Your task to perform on an android device: change the clock display to analog Image 0: 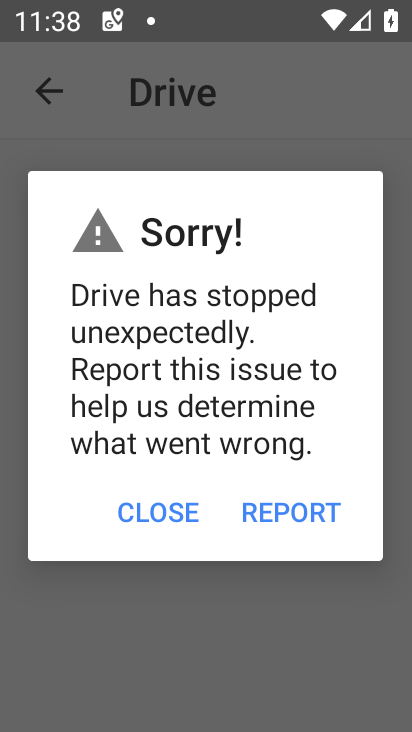
Step 0: press home button
Your task to perform on an android device: change the clock display to analog Image 1: 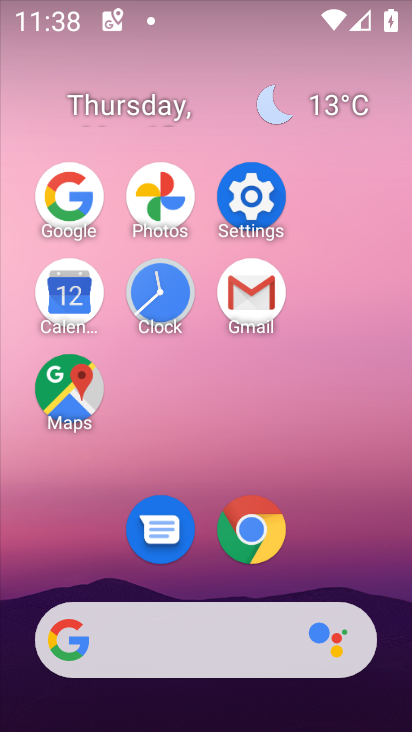
Step 1: click (145, 302)
Your task to perform on an android device: change the clock display to analog Image 2: 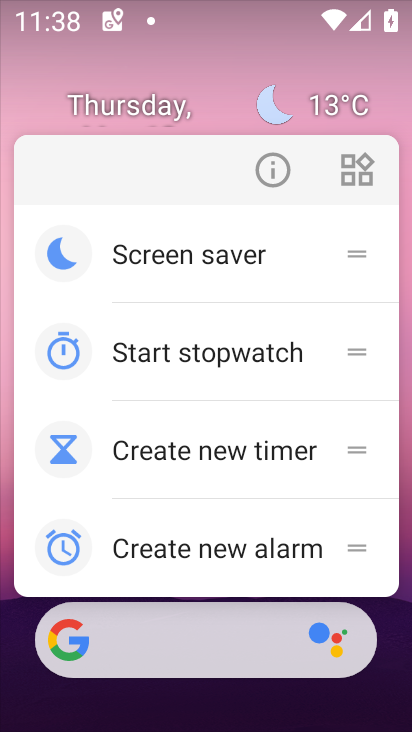
Step 2: click (400, 80)
Your task to perform on an android device: change the clock display to analog Image 3: 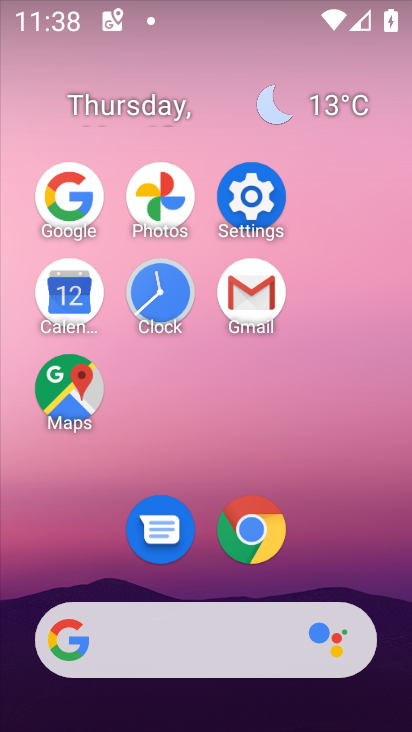
Step 3: click (157, 311)
Your task to perform on an android device: change the clock display to analog Image 4: 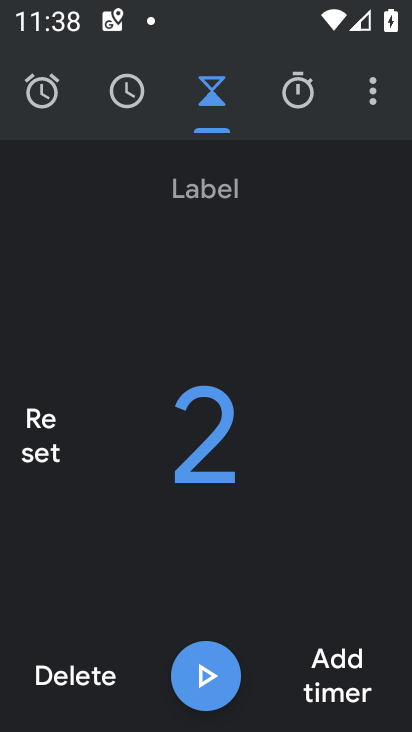
Step 4: click (373, 82)
Your task to perform on an android device: change the clock display to analog Image 5: 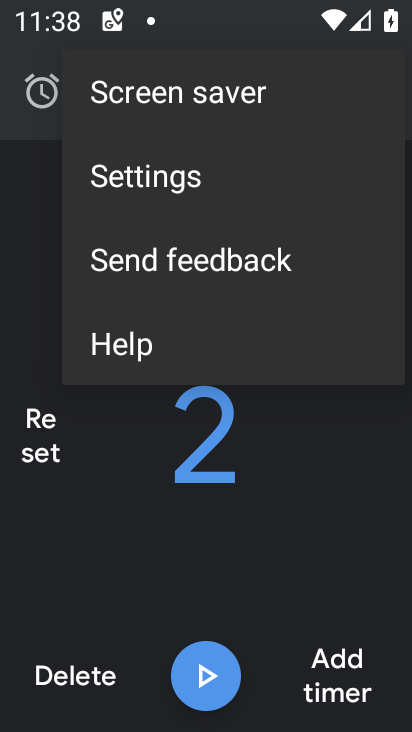
Step 5: click (192, 191)
Your task to perform on an android device: change the clock display to analog Image 6: 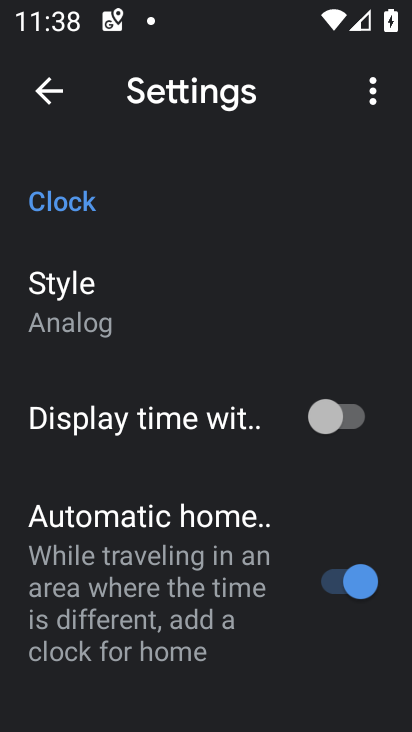
Step 6: task complete